Your task to perform on an android device: Open Chrome and go to settings Image 0: 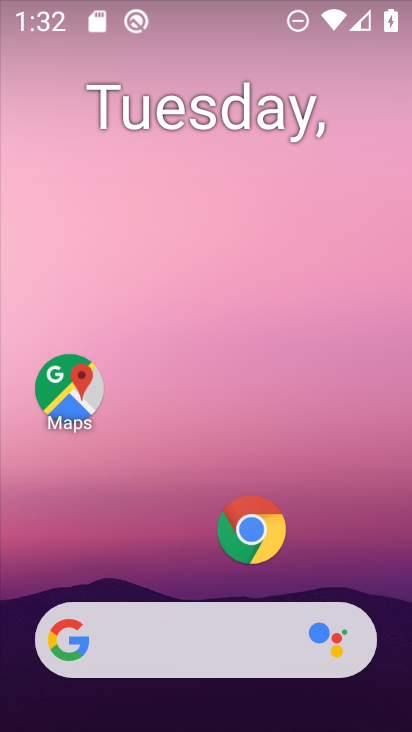
Step 0: drag from (197, 666) to (221, 343)
Your task to perform on an android device: Open Chrome and go to settings Image 1: 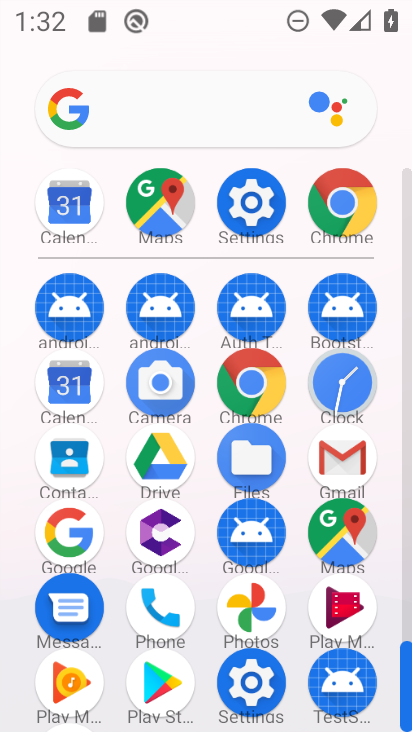
Step 1: click (351, 224)
Your task to perform on an android device: Open Chrome and go to settings Image 2: 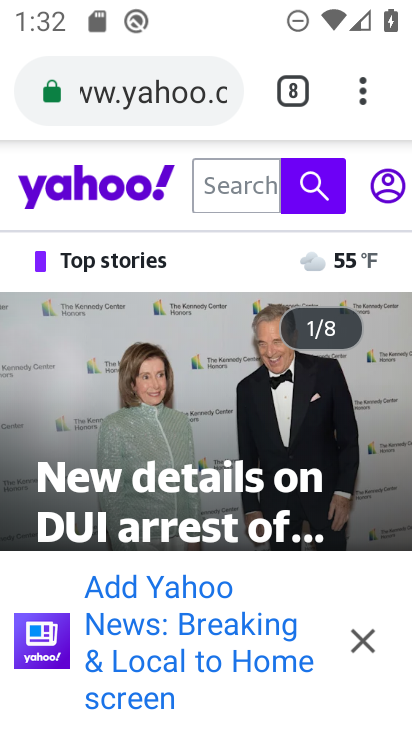
Step 2: click (363, 87)
Your task to perform on an android device: Open Chrome and go to settings Image 3: 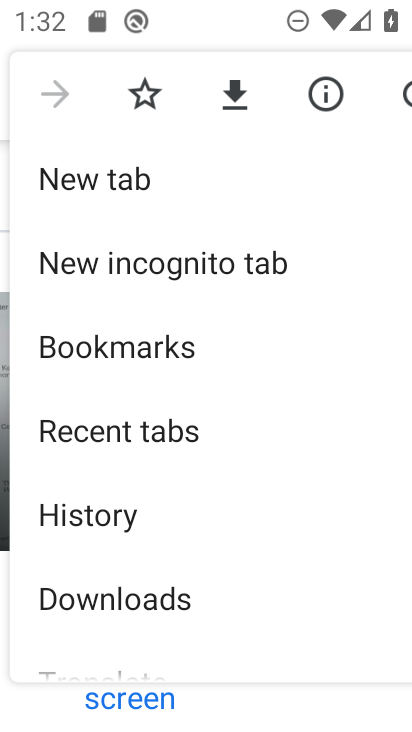
Step 3: drag from (118, 530) to (207, 269)
Your task to perform on an android device: Open Chrome and go to settings Image 4: 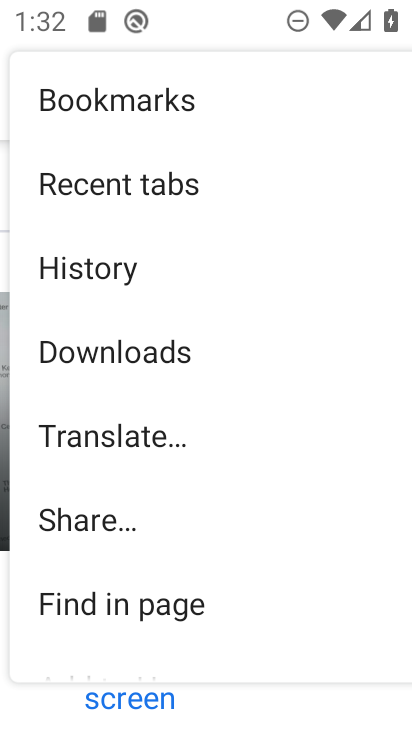
Step 4: drag from (90, 539) to (101, 348)
Your task to perform on an android device: Open Chrome and go to settings Image 5: 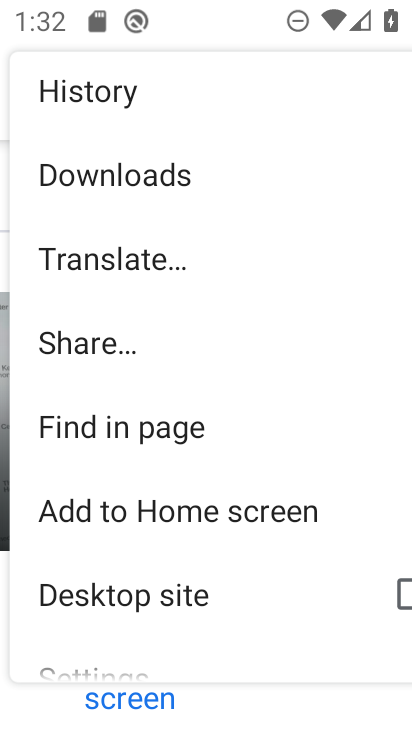
Step 5: click (59, 661)
Your task to perform on an android device: Open Chrome and go to settings Image 6: 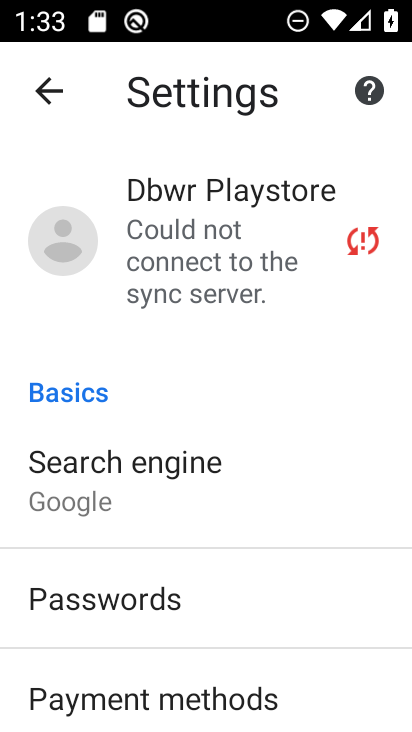
Step 6: task complete